Your task to perform on an android device: Open the calendar and show me this week's events Image 0: 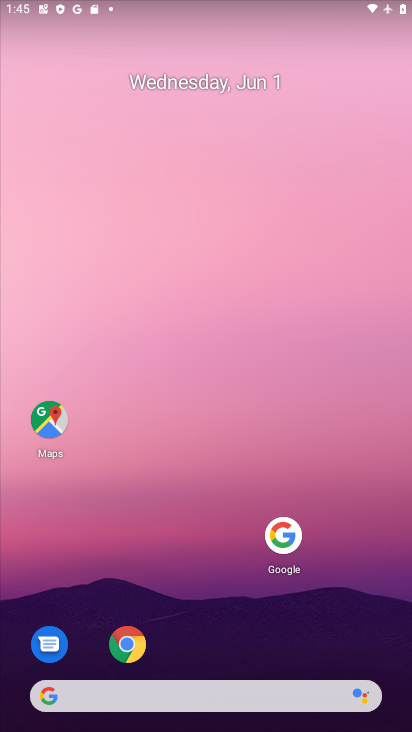
Step 0: press home button
Your task to perform on an android device: Open the calendar and show me this week's events Image 1: 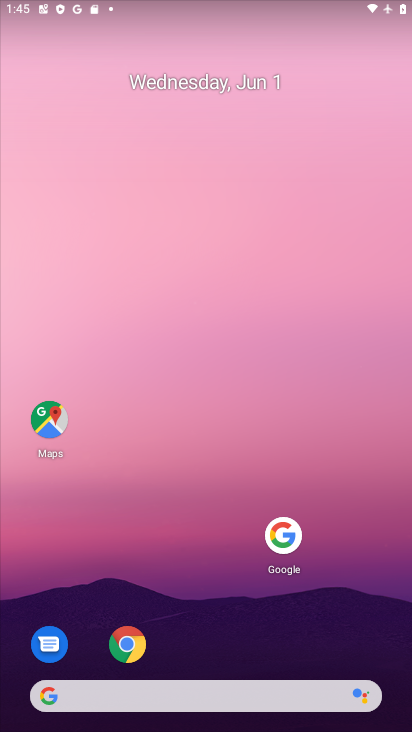
Step 1: drag from (222, 705) to (343, 209)
Your task to perform on an android device: Open the calendar and show me this week's events Image 2: 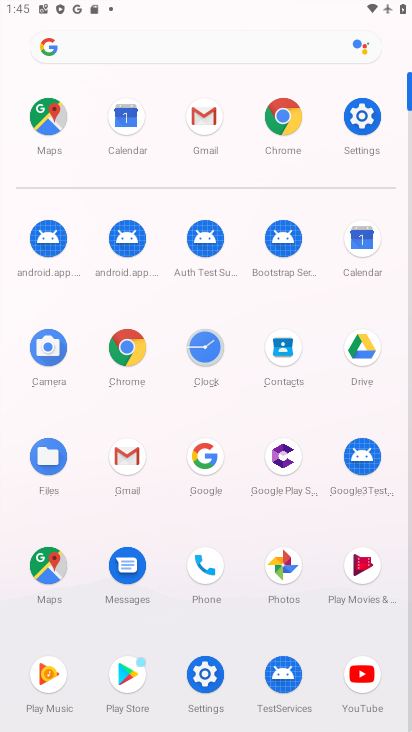
Step 2: click (360, 236)
Your task to perform on an android device: Open the calendar and show me this week's events Image 3: 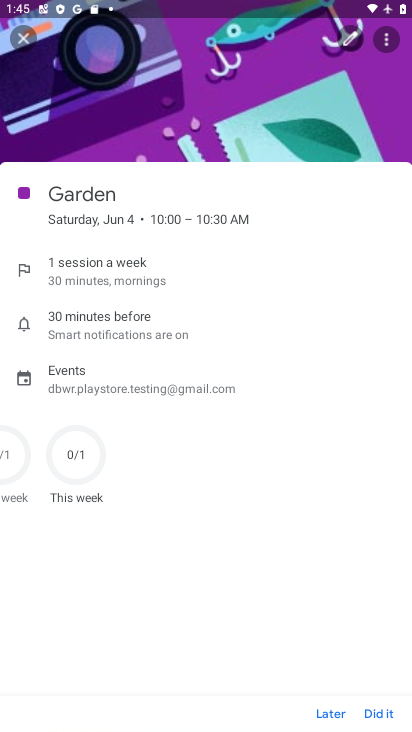
Step 3: click (26, 39)
Your task to perform on an android device: Open the calendar and show me this week's events Image 4: 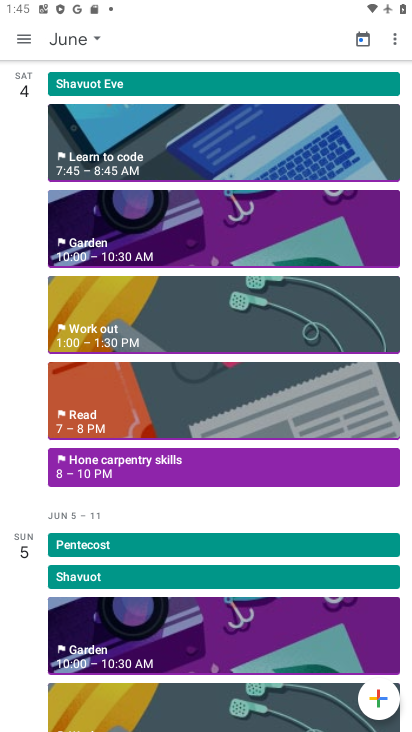
Step 4: click (67, 37)
Your task to perform on an android device: Open the calendar and show me this week's events Image 5: 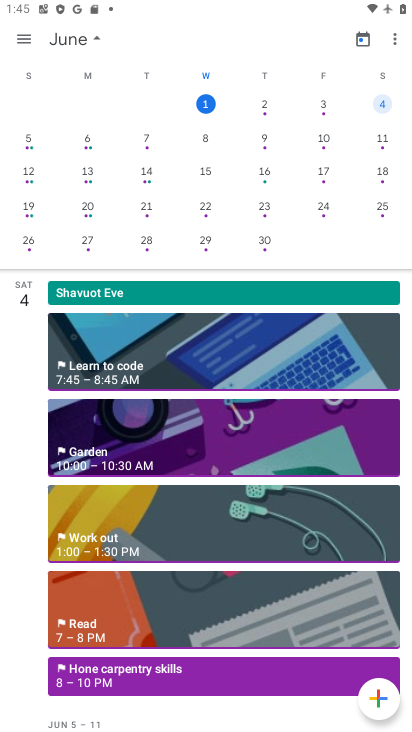
Step 5: click (208, 105)
Your task to perform on an android device: Open the calendar and show me this week's events Image 6: 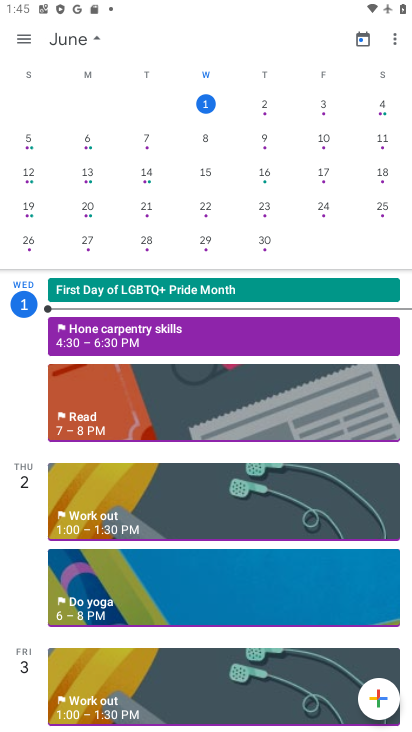
Step 6: click (24, 33)
Your task to perform on an android device: Open the calendar and show me this week's events Image 7: 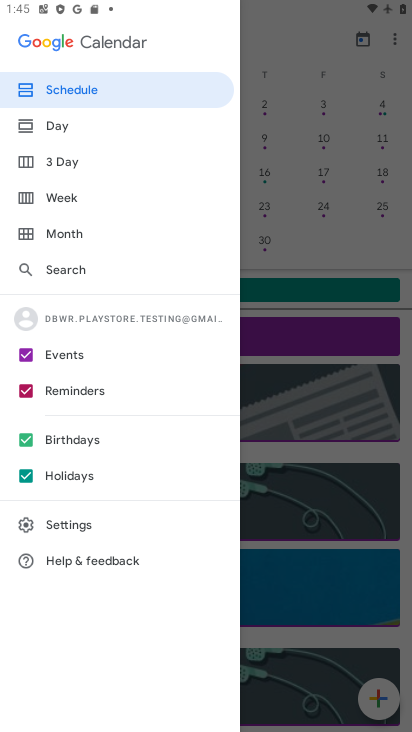
Step 7: click (77, 192)
Your task to perform on an android device: Open the calendar and show me this week's events Image 8: 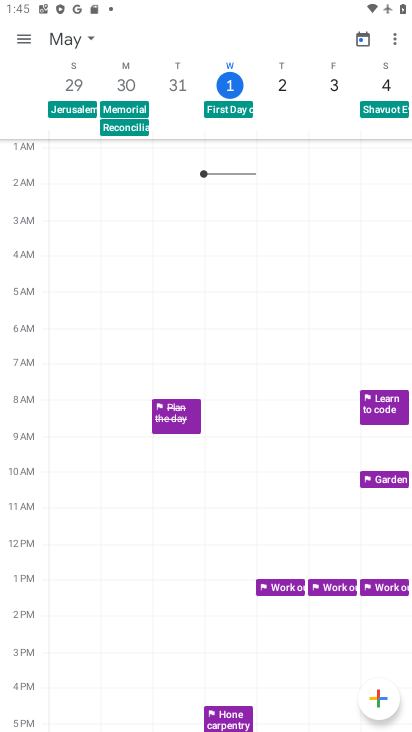
Step 8: click (22, 36)
Your task to perform on an android device: Open the calendar and show me this week's events Image 9: 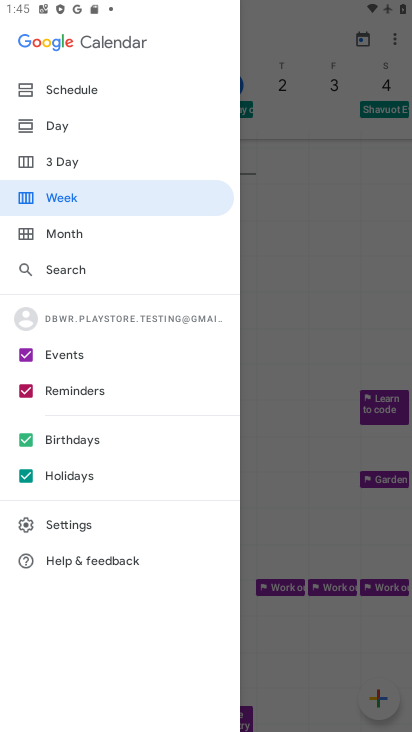
Step 9: click (90, 88)
Your task to perform on an android device: Open the calendar and show me this week's events Image 10: 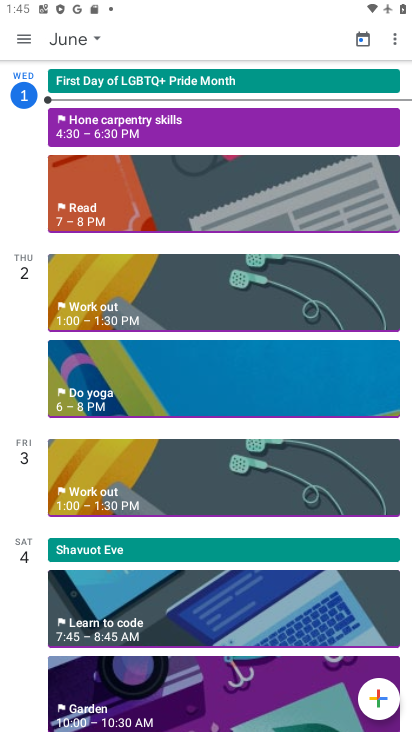
Step 10: drag from (143, 571) to (259, 143)
Your task to perform on an android device: Open the calendar and show me this week's events Image 11: 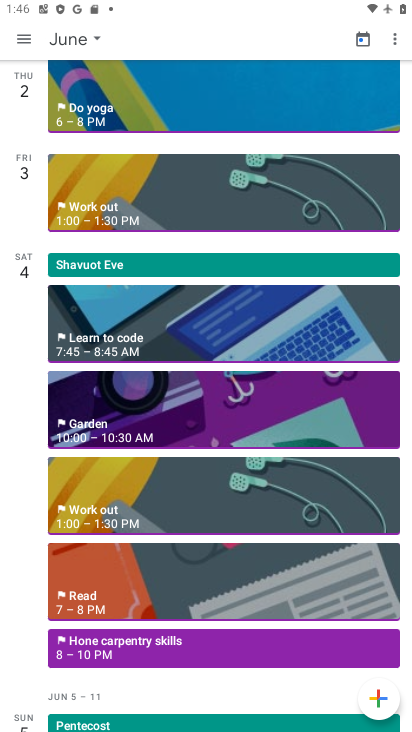
Step 11: click (175, 397)
Your task to perform on an android device: Open the calendar and show me this week's events Image 12: 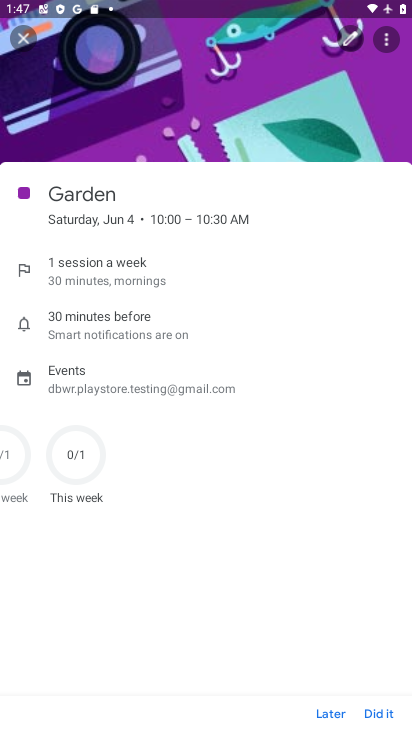
Step 12: task complete